Your task to perform on an android device: clear history in the chrome app Image 0: 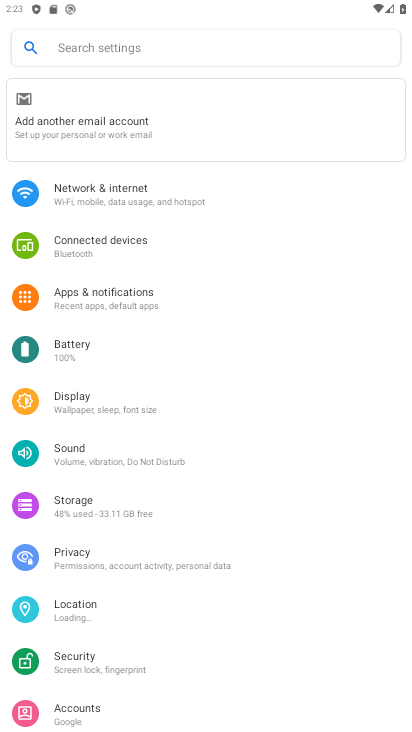
Step 0: press home button
Your task to perform on an android device: clear history in the chrome app Image 1: 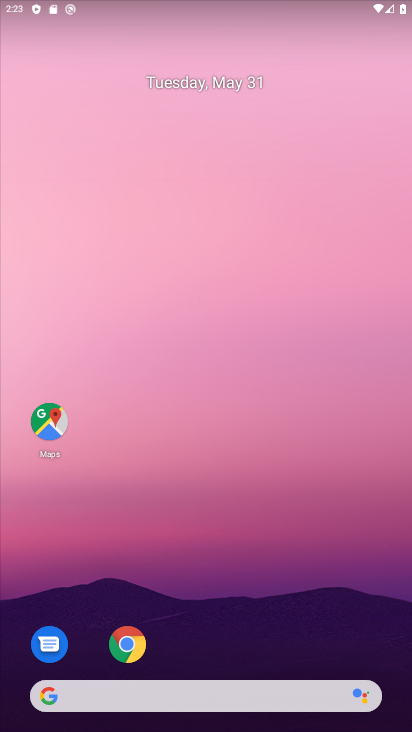
Step 1: click (128, 654)
Your task to perform on an android device: clear history in the chrome app Image 2: 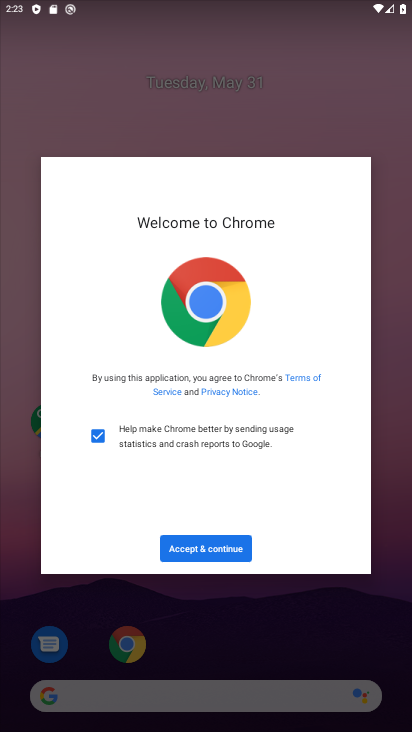
Step 2: click (195, 545)
Your task to perform on an android device: clear history in the chrome app Image 3: 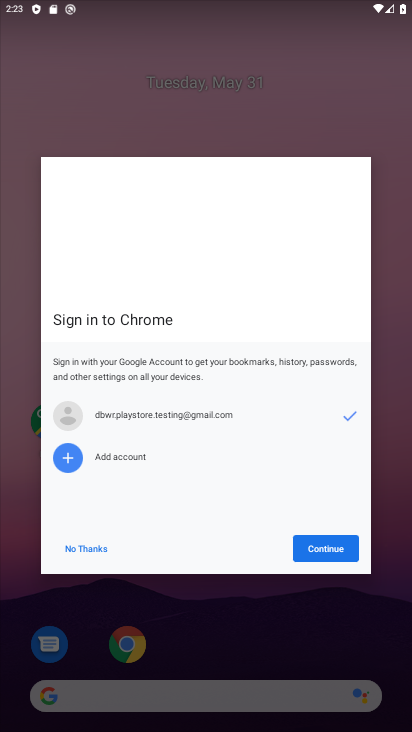
Step 3: click (344, 554)
Your task to perform on an android device: clear history in the chrome app Image 4: 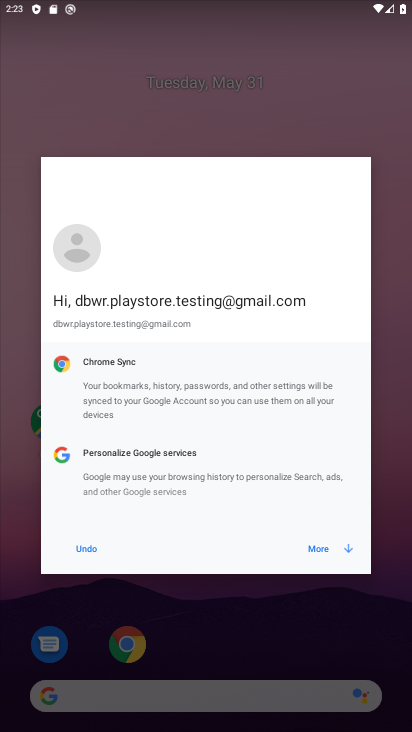
Step 4: click (324, 536)
Your task to perform on an android device: clear history in the chrome app Image 5: 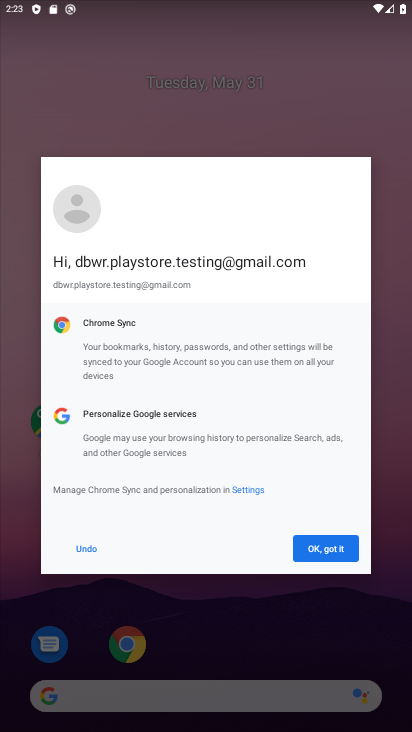
Step 5: click (315, 547)
Your task to perform on an android device: clear history in the chrome app Image 6: 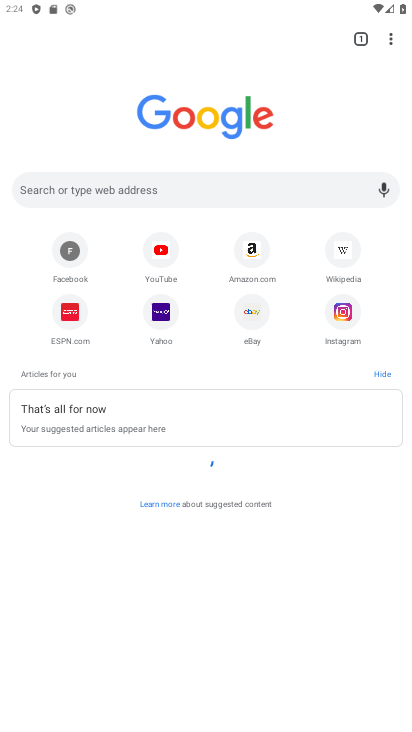
Step 6: click (390, 41)
Your task to perform on an android device: clear history in the chrome app Image 7: 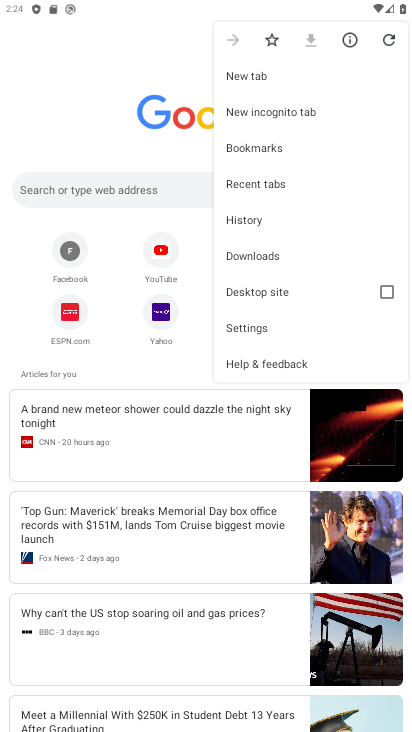
Step 7: click (262, 226)
Your task to perform on an android device: clear history in the chrome app Image 8: 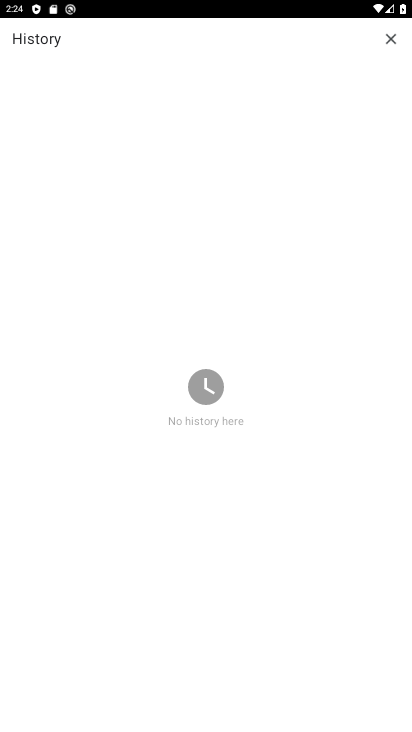
Step 8: task complete